Your task to perform on an android device: add a contact Image 0: 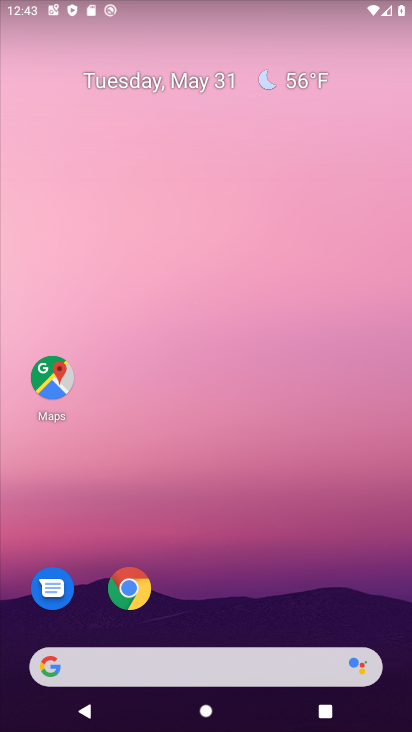
Step 0: drag from (186, 609) to (186, 35)
Your task to perform on an android device: add a contact Image 1: 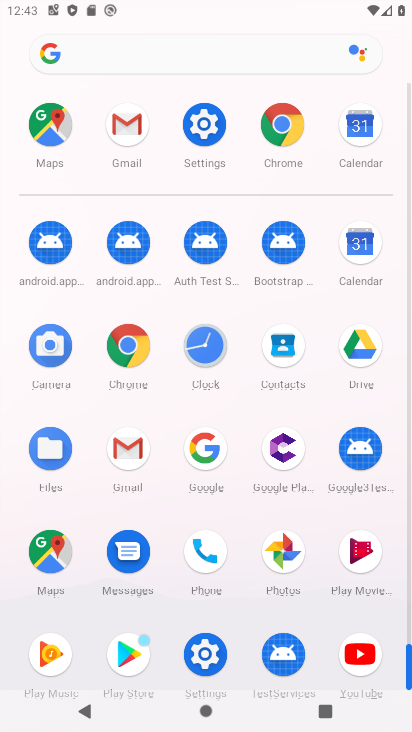
Step 1: click (277, 373)
Your task to perform on an android device: add a contact Image 2: 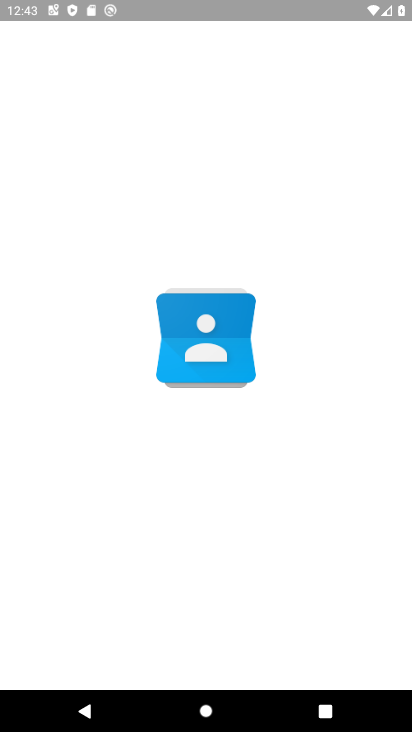
Step 2: click (278, 359)
Your task to perform on an android device: add a contact Image 3: 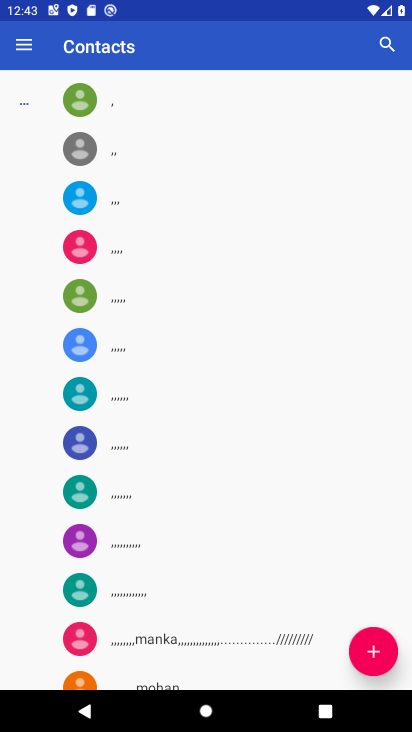
Step 3: click (283, 365)
Your task to perform on an android device: add a contact Image 4: 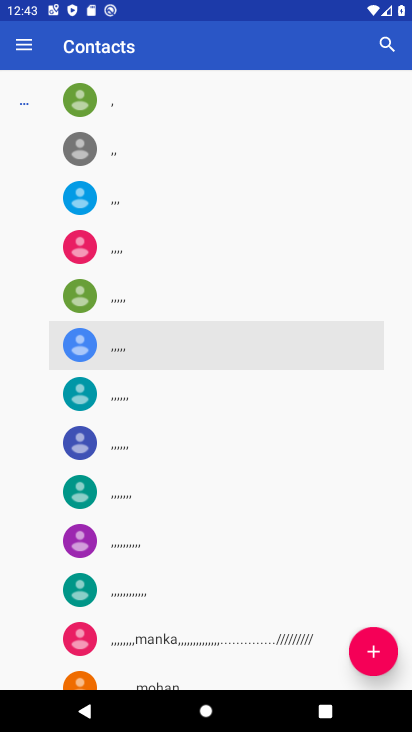
Step 4: click (368, 651)
Your task to perform on an android device: add a contact Image 5: 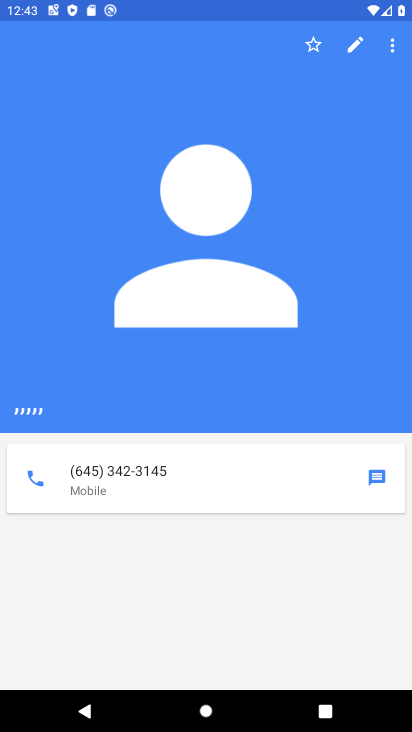
Step 5: press back button
Your task to perform on an android device: add a contact Image 6: 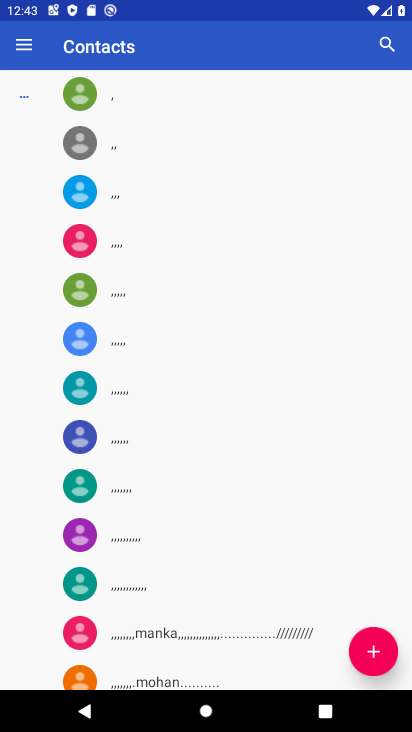
Step 6: click (355, 670)
Your task to perform on an android device: add a contact Image 7: 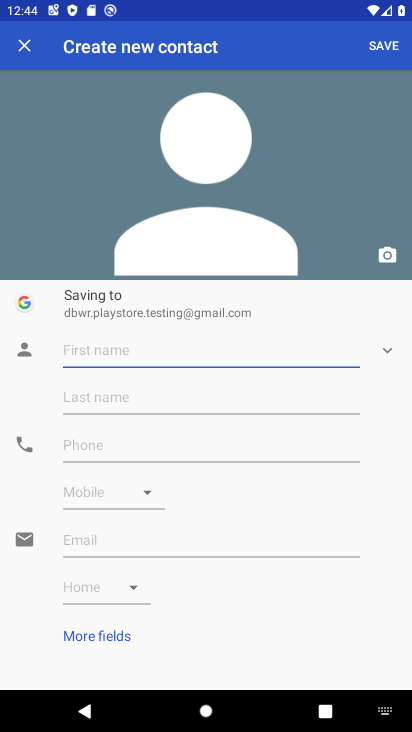
Step 7: type "Nikrat"
Your task to perform on an android device: add a contact Image 8: 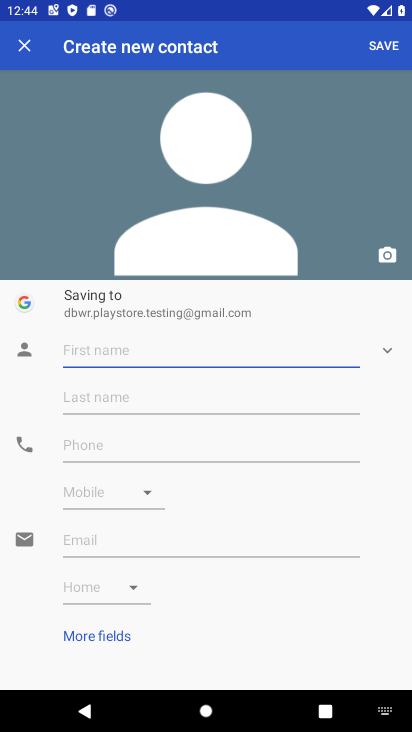
Step 8: click (100, 411)
Your task to perform on an android device: add a contact Image 9: 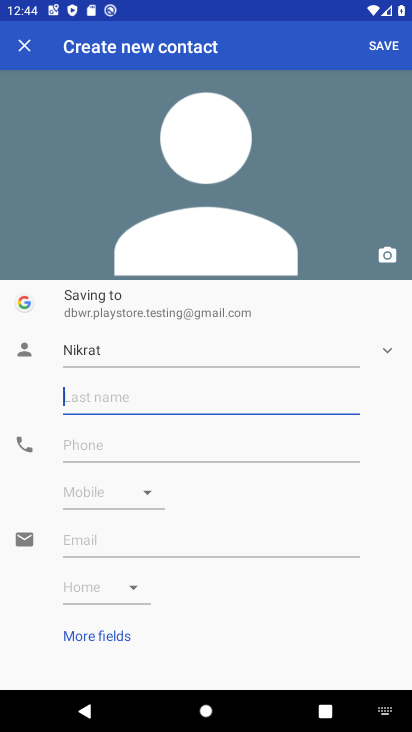
Step 9: type "Vasu"
Your task to perform on an android device: add a contact Image 10: 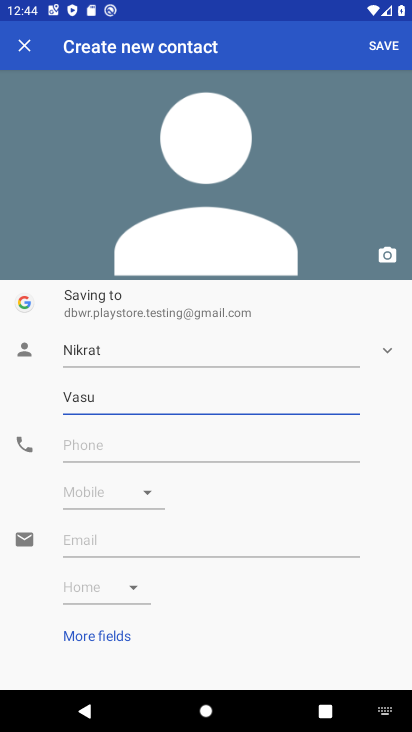
Step 10: click (189, 443)
Your task to perform on an android device: add a contact Image 11: 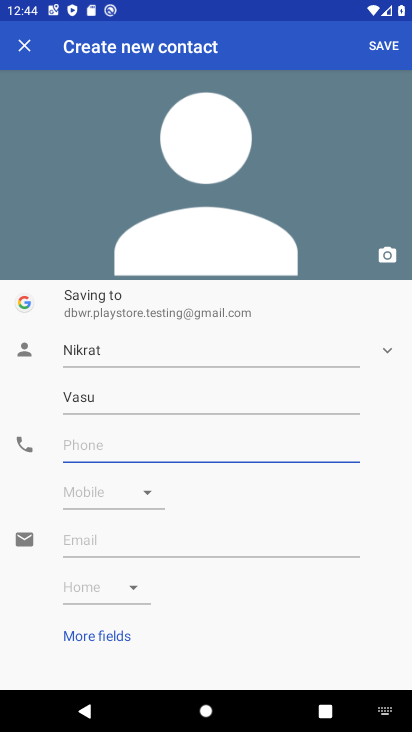
Step 11: click (147, 441)
Your task to perform on an android device: add a contact Image 12: 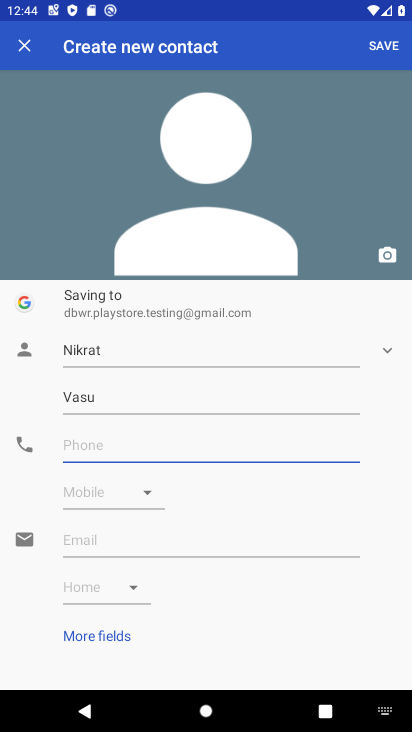
Step 12: type "011-24232434"
Your task to perform on an android device: add a contact Image 13: 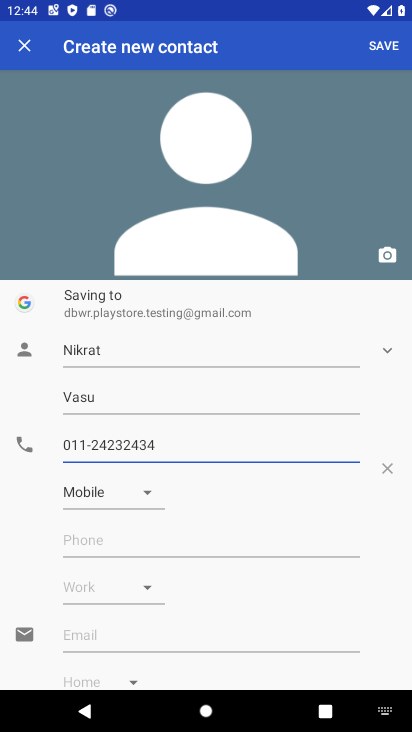
Step 13: click (379, 53)
Your task to perform on an android device: add a contact Image 14: 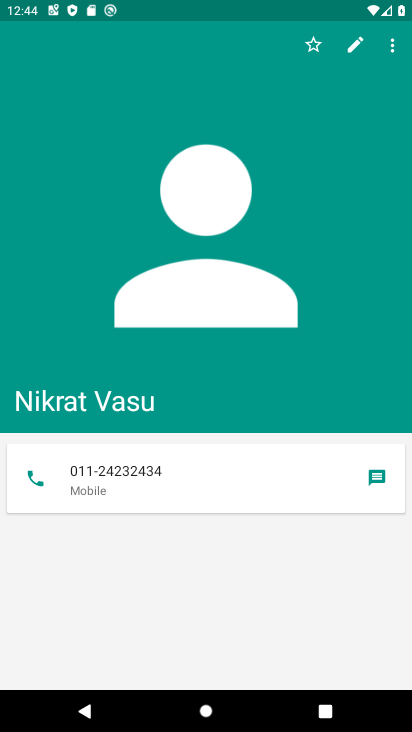
Step 14: task complete